Your task to perform on an android device: Search for Mexican restaurants on Maps Image 0: 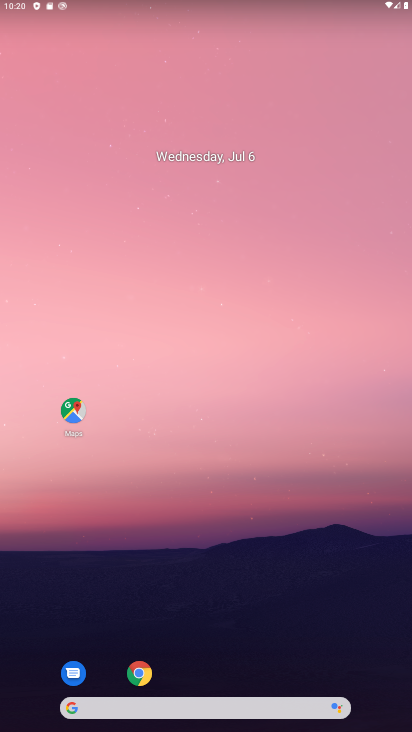
Step 0: click (215, 728)
Your task to perform on an android device: Search for Mexican restaurants on Maps Image 1: 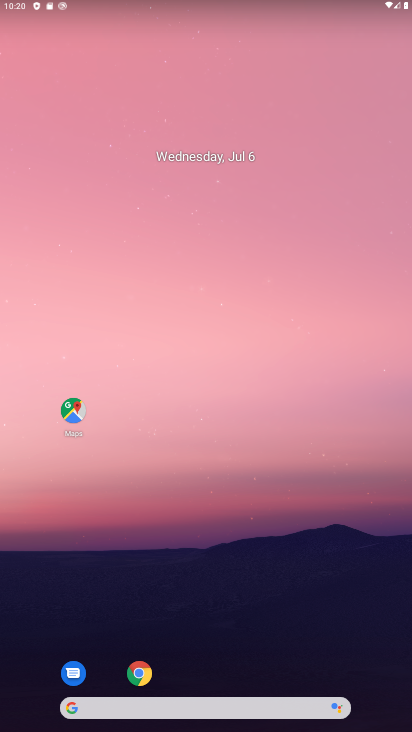
Step 1: drag from (215, 125) to (215, 88)
Your task to perform on an android device: Search for Mexican restaurants on Maps Image 2: 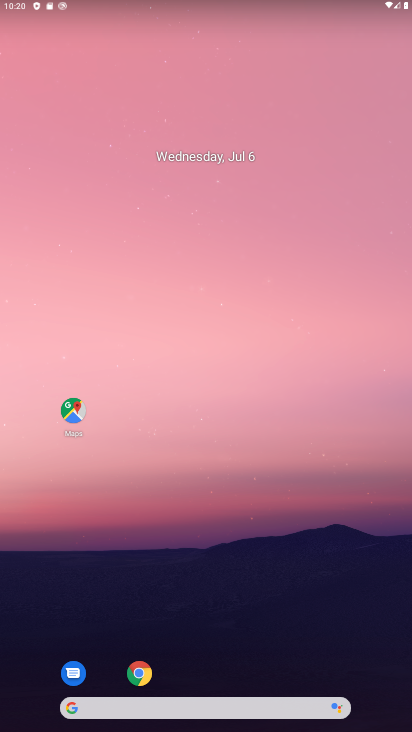
Step 2: drag from (250, 729) to (181, 23)
Your task to perform on an android device: Search for Mexican restaurants on Maps Image 3: 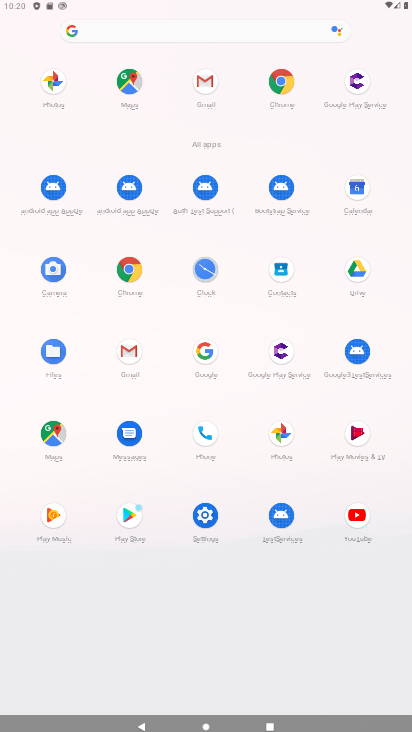
Step 3: click (41, 430)
Your task to perform on an android device: Search for Mexican restaurants on Maps Image 4: 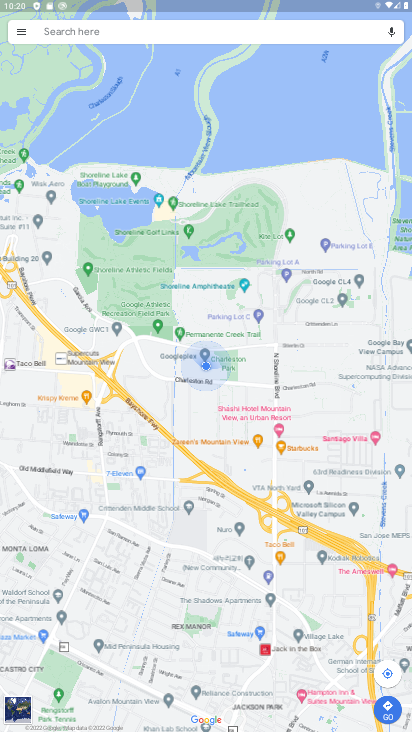
Step 4: click (152, 26)
Your task to perform on an android device: Search for Mexican restaurants on Maps Image 5: 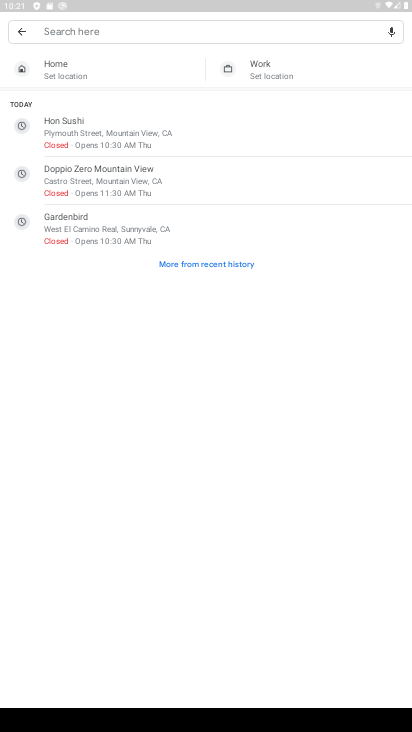
Step 5: type "Mexican restaurants"
Your task to perform on an android device: Search for Mexican restaurants on Maps Image 6: 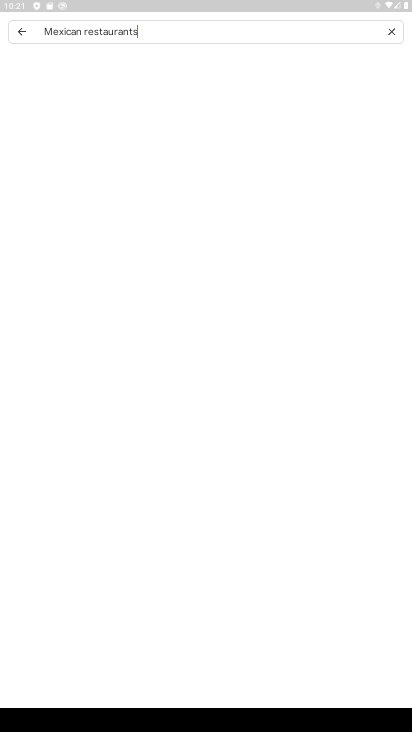
Step 6: type ""
Your task to perform on an android device: Search for Mexican restaurants on Maps Image 7: 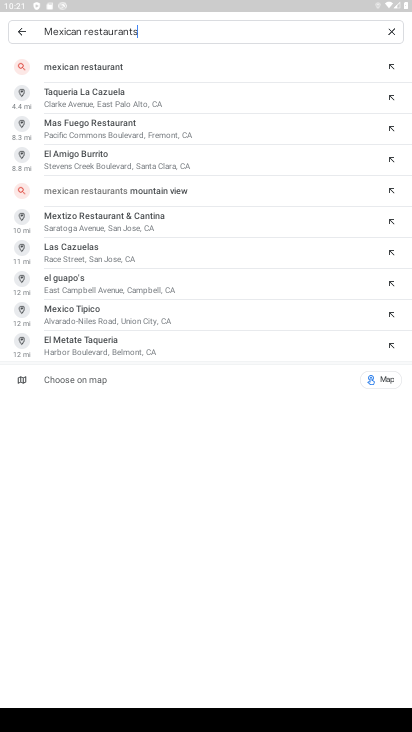
Step 7: click (90, 61)
Your task to perform on an android device: Search for Mexican restaurants on Maps Image 8: 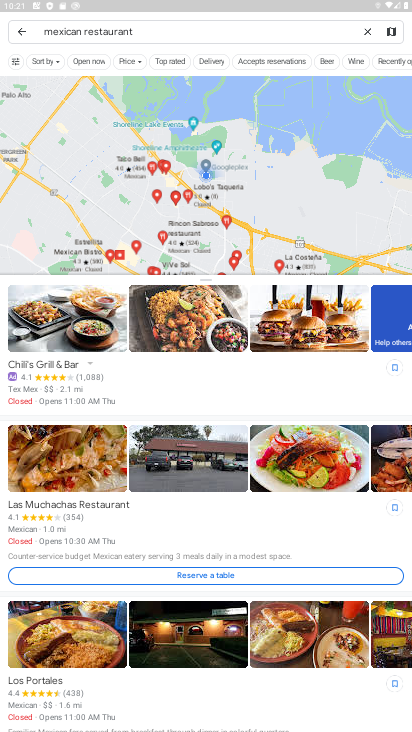
Step 8: task complete